Your task to perform on an android device: Show the shopping cart on amazon.com. Image 0: 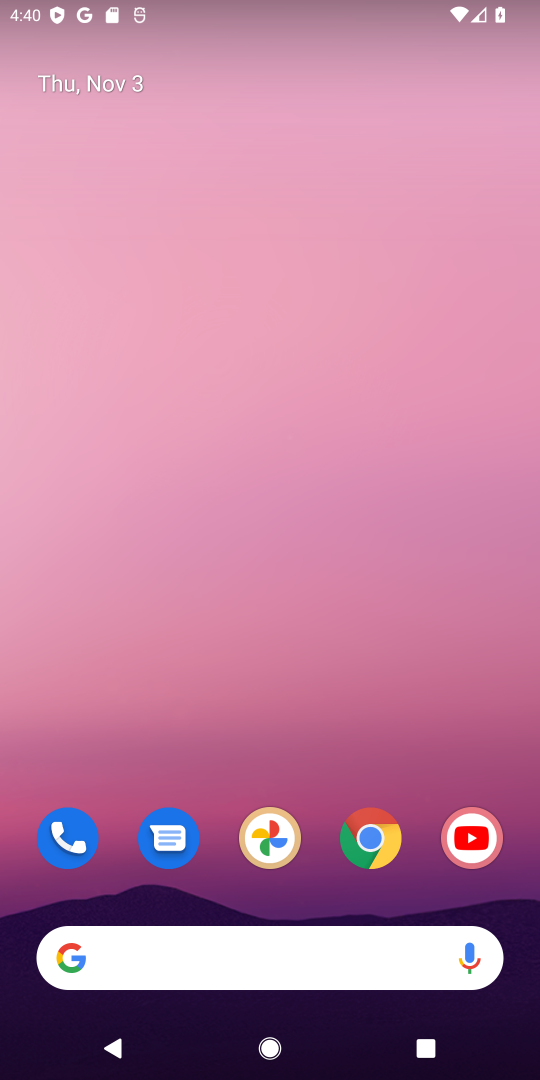
Step 0: click (78, 951)
Your task to perform on an android device: Show the shopping cart on amazon.com. Image 1: 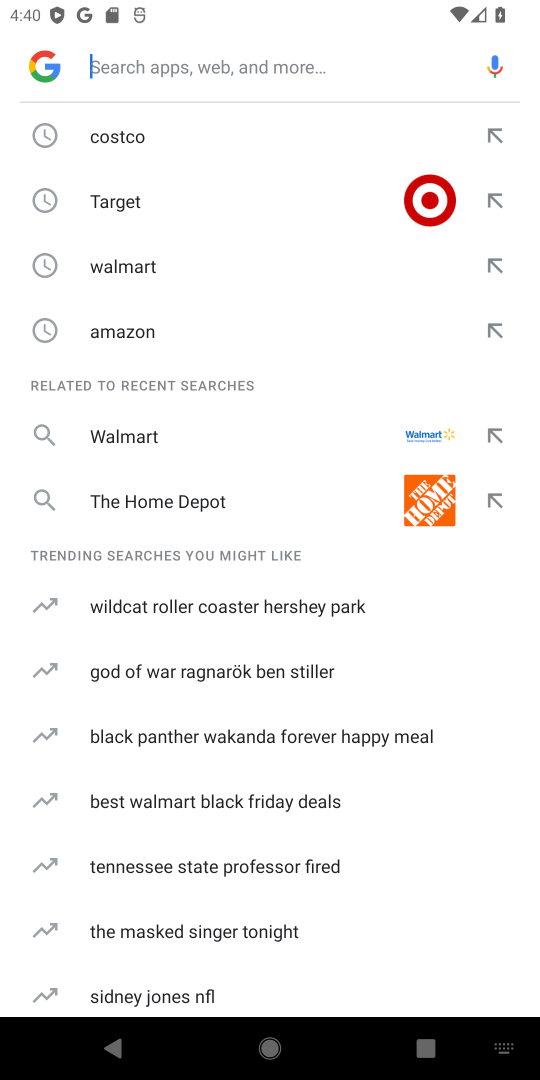
Step 1: click (158, 343)
Your task to perform on an android device: Show the shopping cart on amazon.com. Image 2: 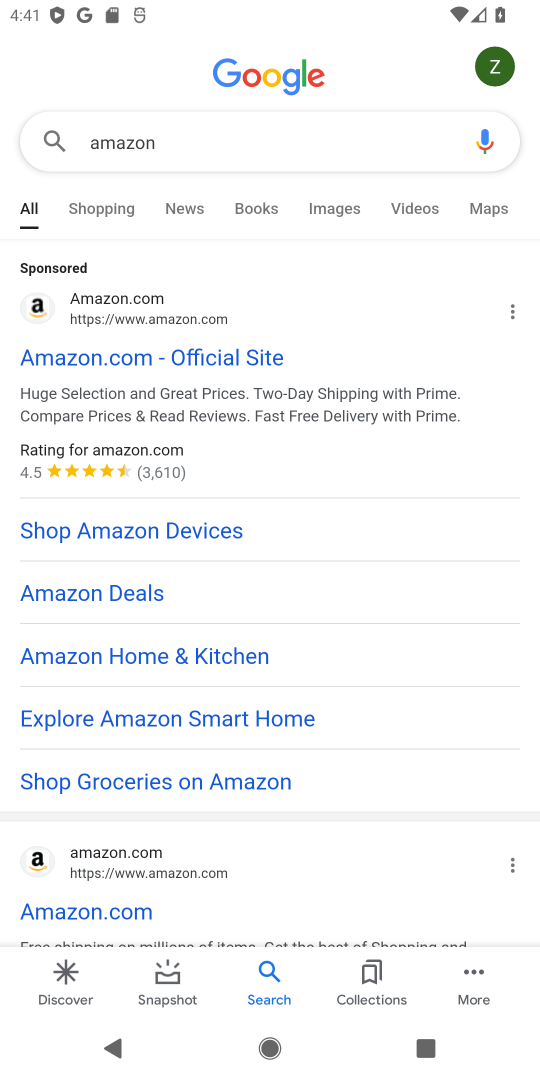
Step 2: click (166, 360)
Your task to perform on an android device: Show the shopping cart on amazon.com. Image 3: 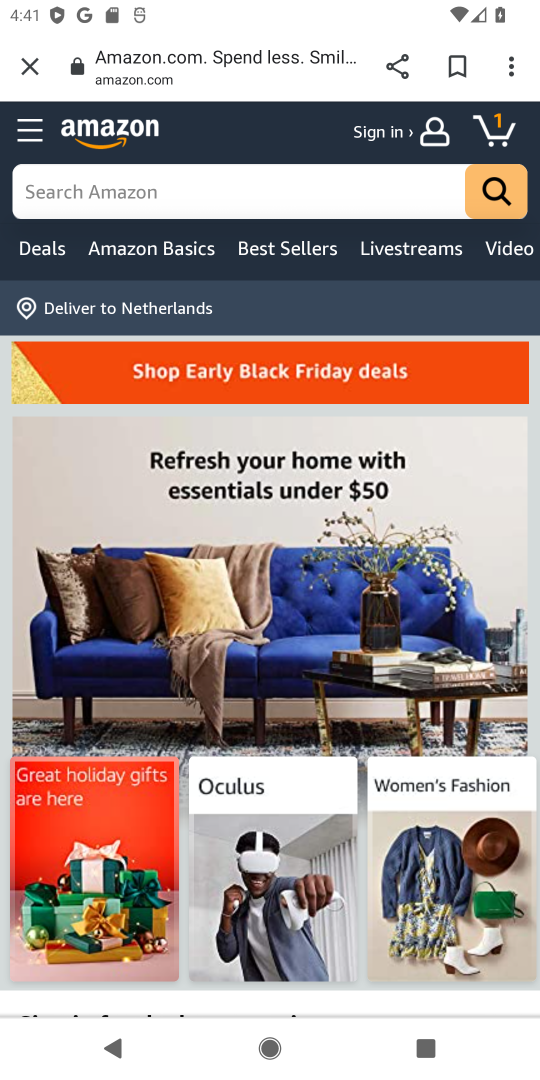
Step 3: click (169, 189)
Your task to perform on an android device: Show the shopping cart on amazon.com. Image 4: 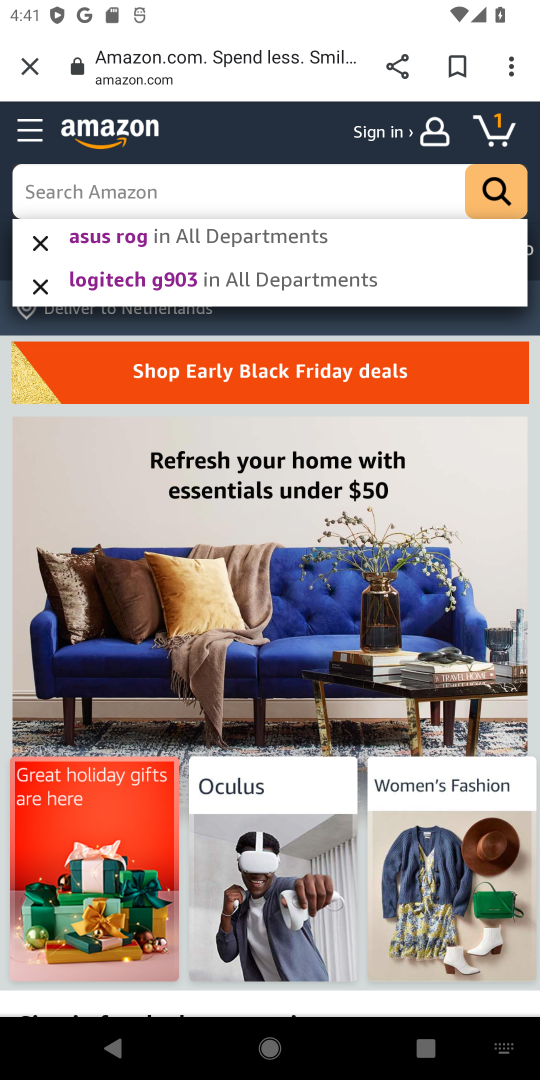
Step 4: click (169, 189)
Your task to perform on an android device: Show the shopping cart on amazon.com. Image 5: 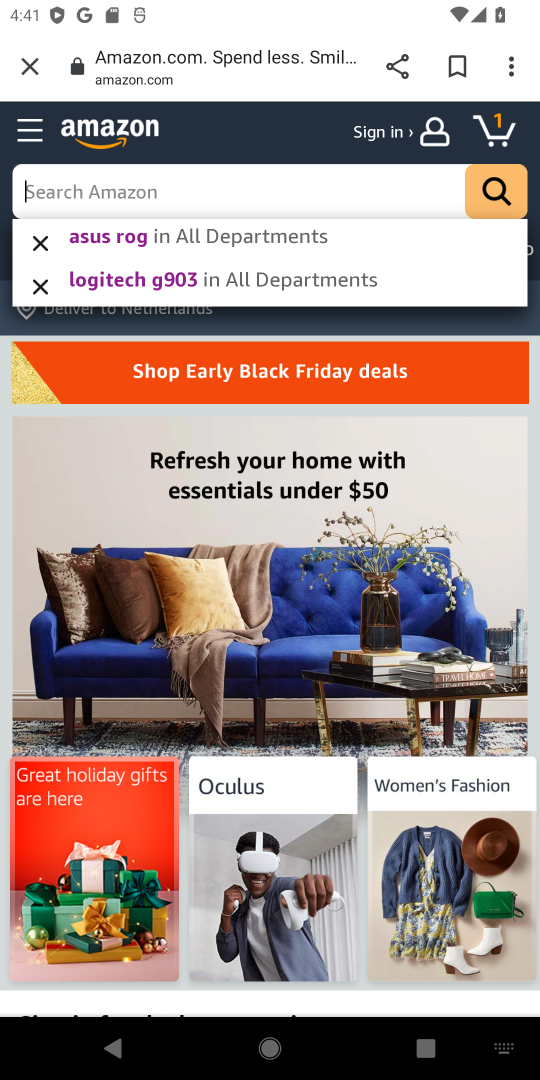
Step 5: click (502, 133)
Your task to perform on an android device: Show the shopping cart on amazon.com. Image 6: 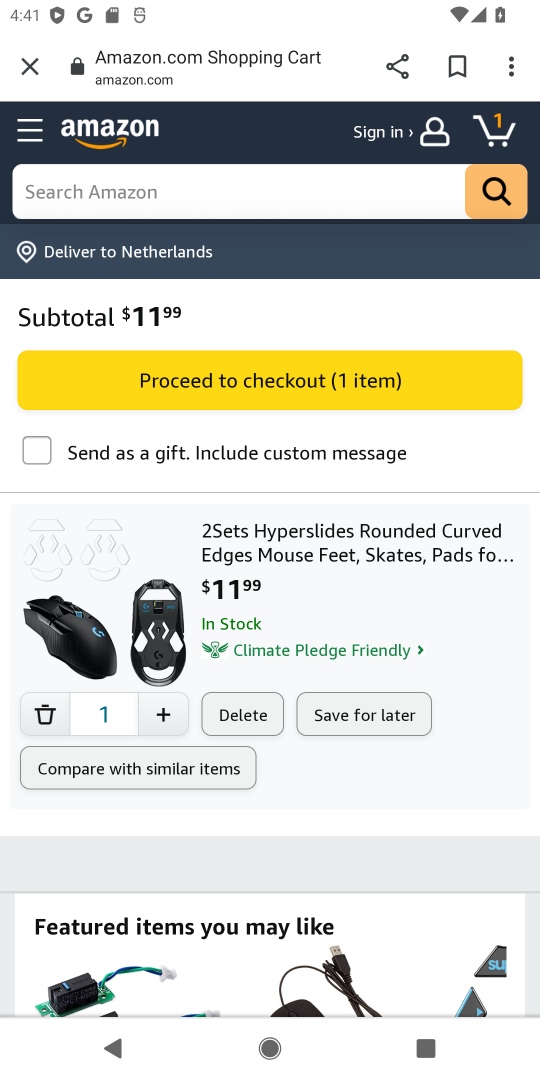
Step 6: task complete